Your task to perform on an android device: open chrome and create a bookmark for the current page Image 0: 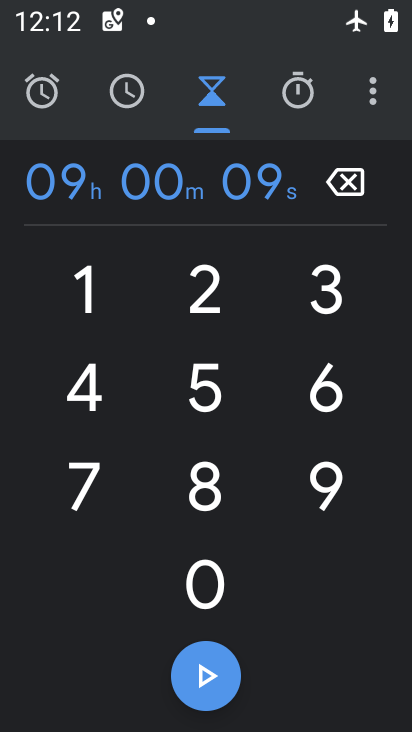
Step 0: press home button
Your task to perform on an android device: open chrome and create a bookmark for the current page Image 1: 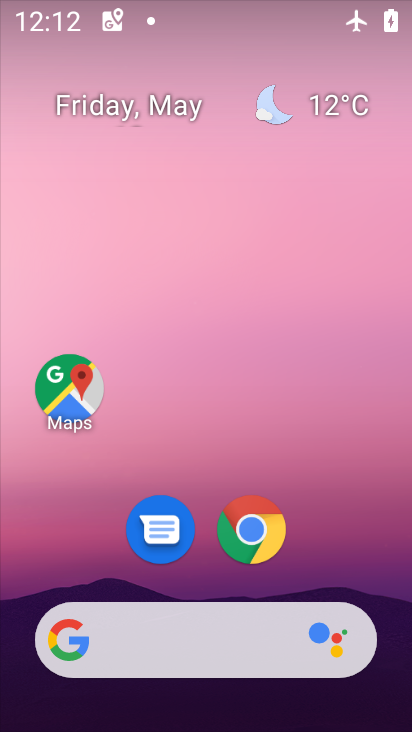
Step 1: click (262, 535)
Your task to perform on an android device: open chrome and create a bookmark for the current page Image 2: 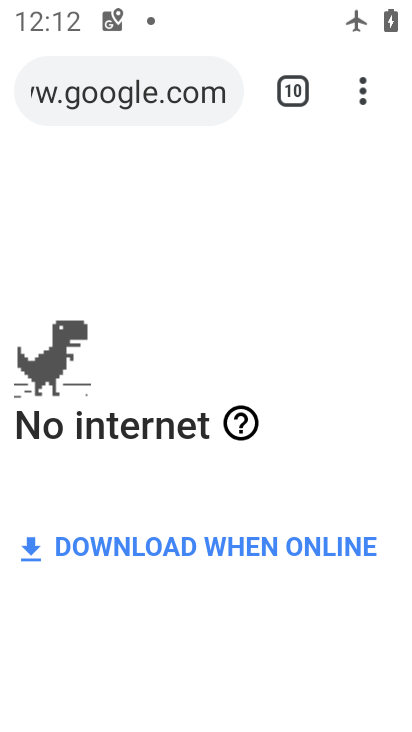
Step 2: click (350, 90)
Your task to perform on an android device: open chrome and create a bookmark for the current page Image 3: 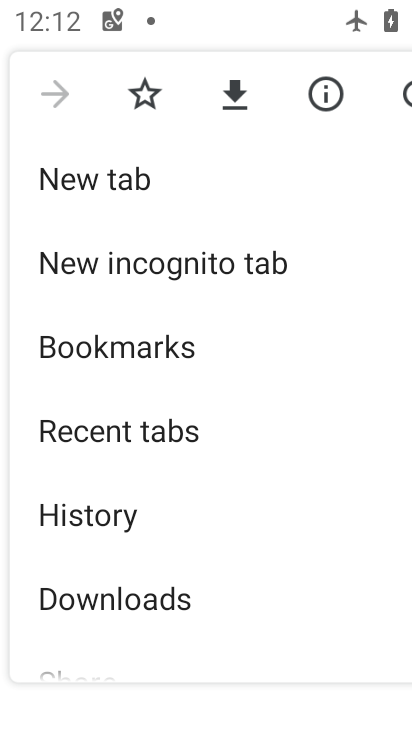
Step 3: click (140, 99)
Your task to perform on an android device: open chrome and create a bookmark for the current page Image 4: 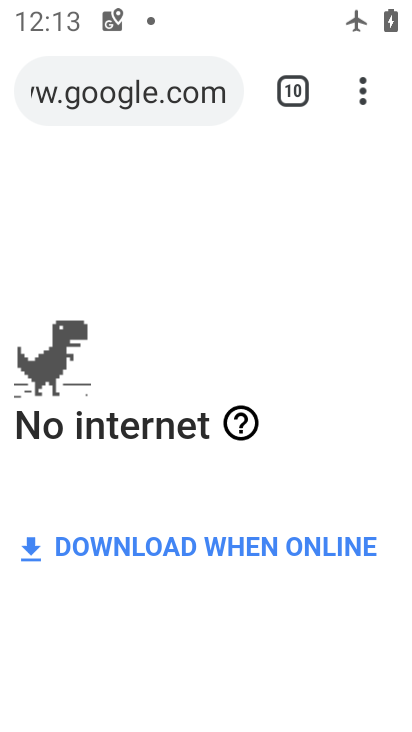
Step 4: task complete